Your task to perform on an android device: Find coffee shops on Maps Image 0: 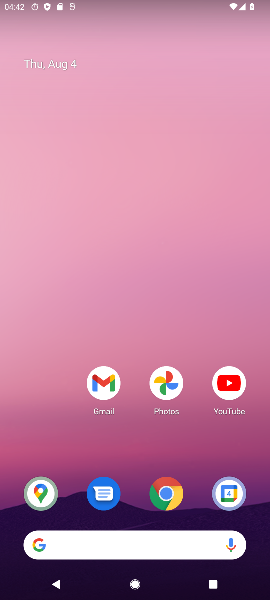
Step 0: click (43, 493)
Your task to perform on an android device: Find coffee shops on Maps Image 1: 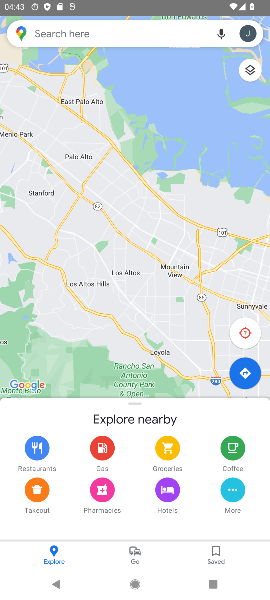
Step 1: click (80, 33)
Your task to perform on an android device: Find coffee shops on Maps Image 2: 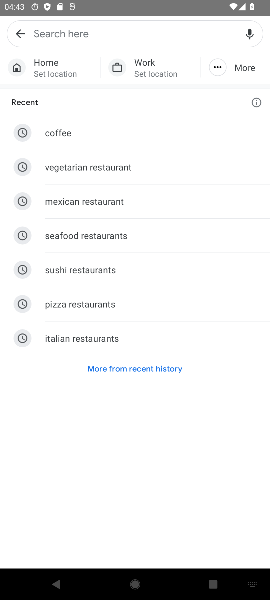
Step 2: type " coffee shops"
Your task to perform on an android device: Find coffee shops on Maps Image 3: 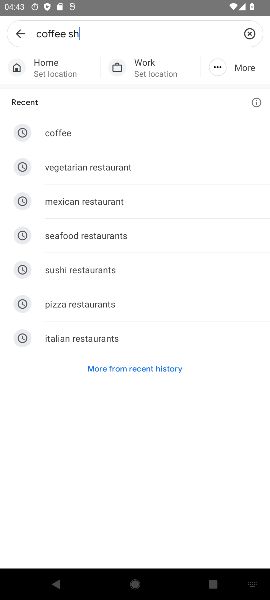
Step 3: type ""
Your task to perform on an android device: Find coffee shops on Maps Image 4: 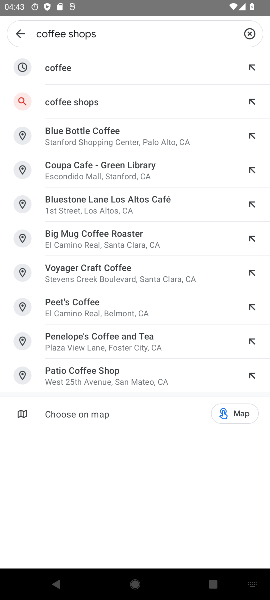
Step 4: click (79, 104)
Your task to perform on an android device: Find coffee shops on Maps Image 5: 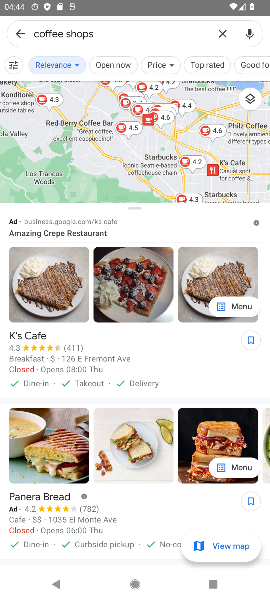
Step 5: task complete